Your task to perform on an android device: turn on sleep mode Image 0: 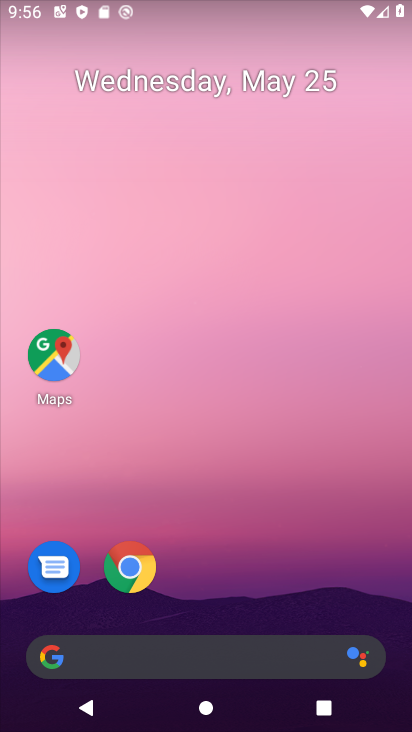
Step 0: drag from (309, 549) to (305, 262)
Your task to perform on an android device: turn on sleep mode Image 1: 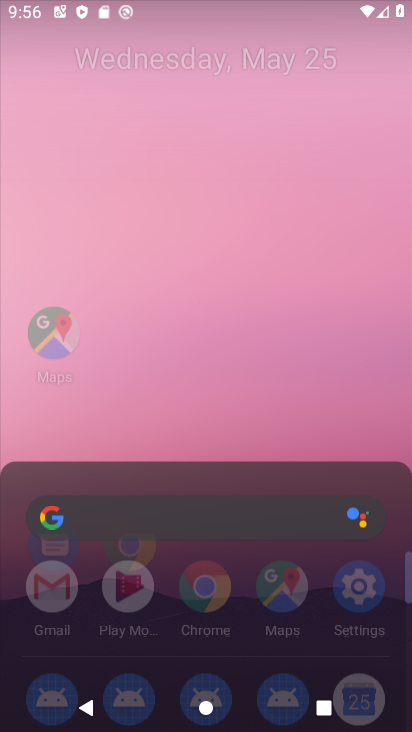
Step 1: click (305, 223)
Your task to perform on an android device: turn on sleep mode Image 2: 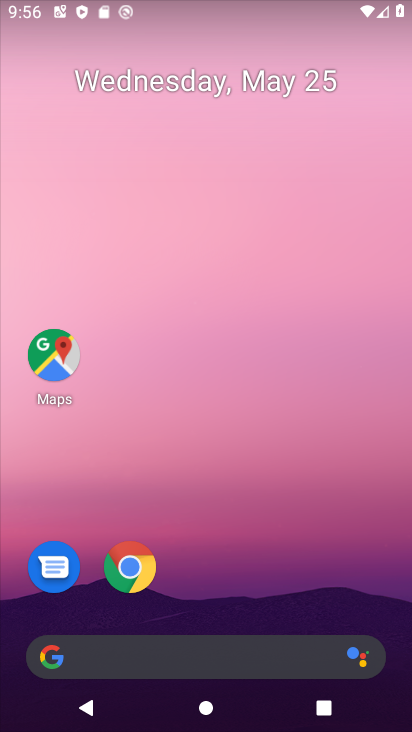
Step 2: drag from (254, 565) to (397, 5)
Your task to perform on an android device: turn on sleep mode Image 3: 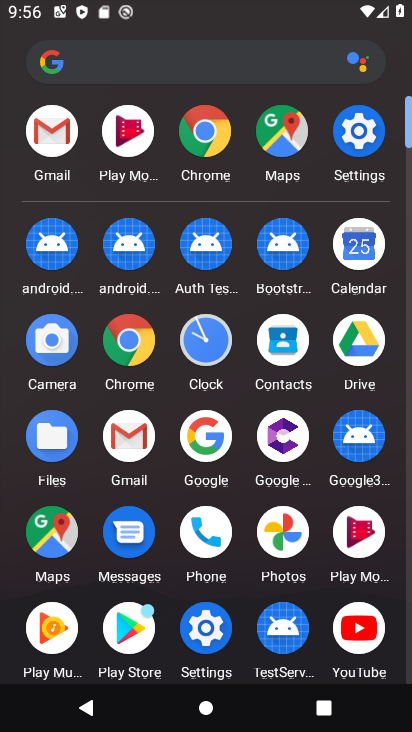
Step 3: click (375, 163)
Your task to perform on an android device: turn on sleep mode Image 4: 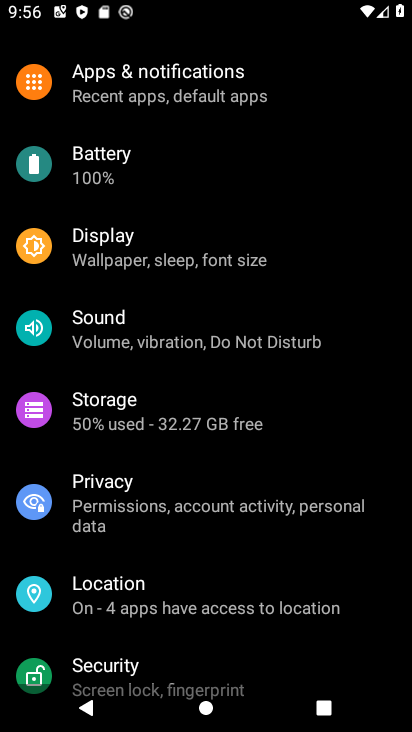
Step 4: drag from (153, 565) to (208, 196)
Your task to perform on an android device: turn on sleep mode Image 5: 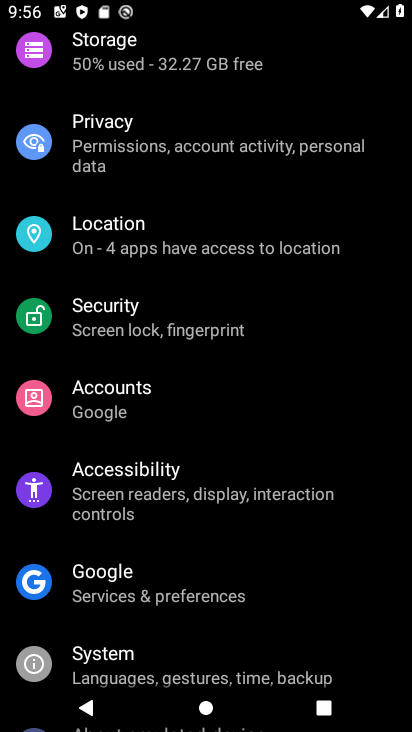
Step 5: drag from (203, 159) to (196, 470)
Your task to perform on an android device: turn on sleep mode Image 6: 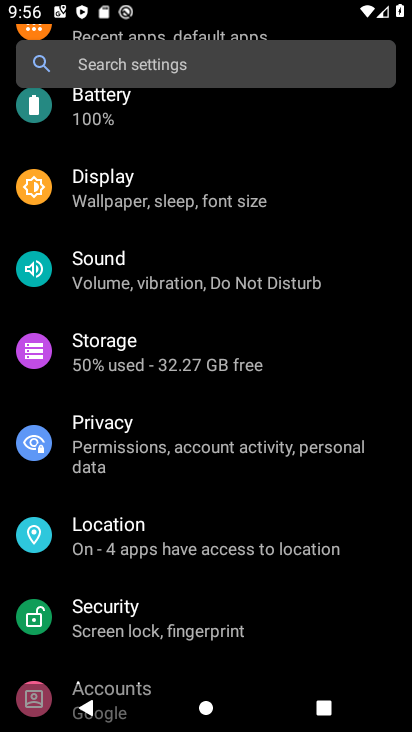
Step 6: click (202, 198)
Your task to perform on an android device: turn on sleep mode Image 7: 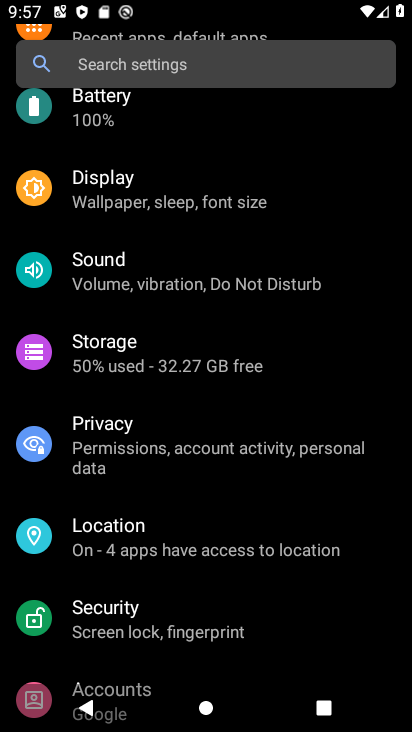
Step 7: click (221, 211)
Your task to perform on an android device: turn on sleep mode Image 8: 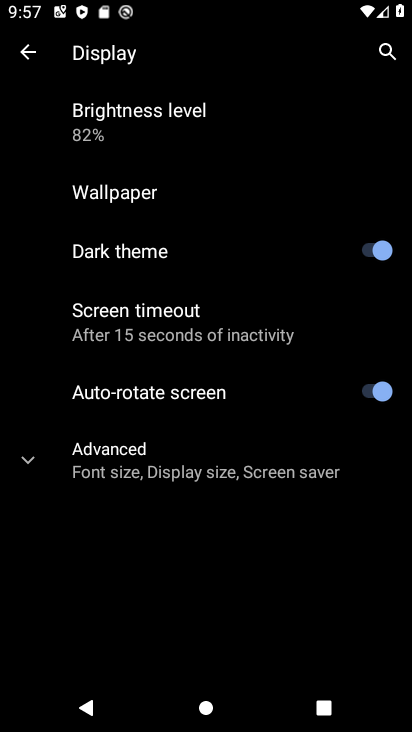
Step 8: drag from (172, 445) to (178, 410)
Your task to perform on an android device: turn on sleep mode Image 9: 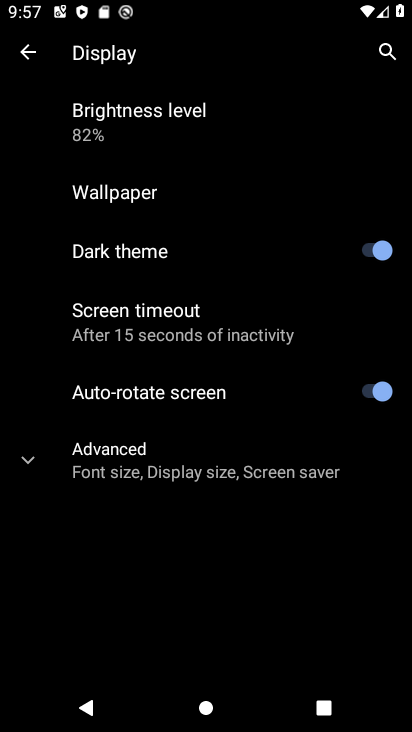
Step 9: click (178, 410)
Your task to perform on an android device: turn on sleep mode Image 10: 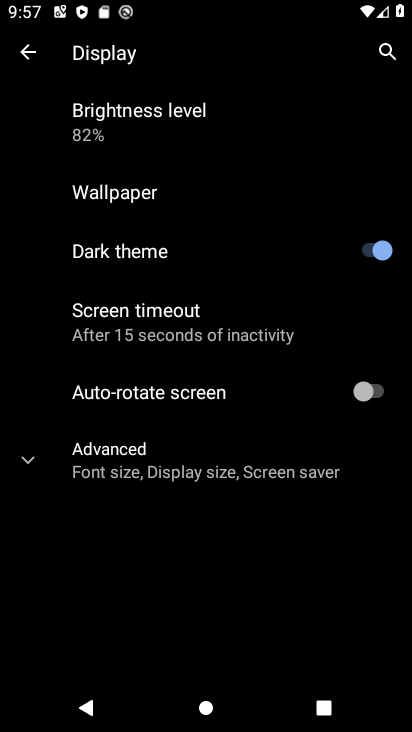
Step 10: task complete